Your task to perform on an android device: What is the recent news? Image 0: 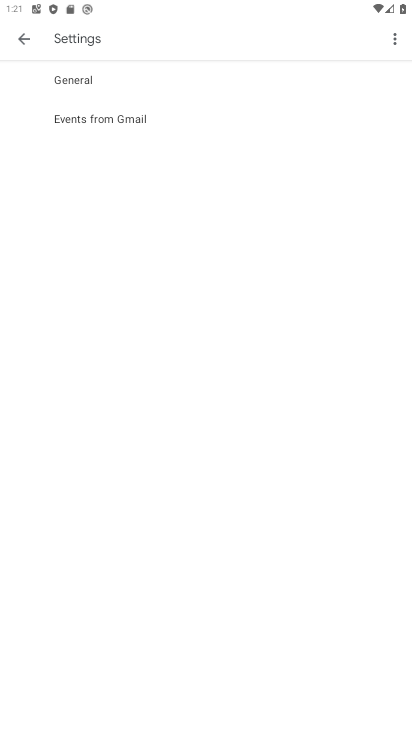
Step 0: press home button
Your task to perform on an android device: What is the recent news? Image 1: 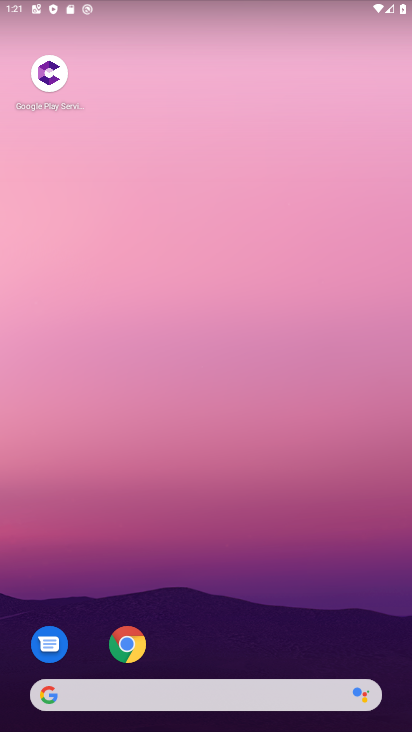
Step 1: drag from (411, 613) to (410, 190)
Your task to perform on an android device: What is the recent news? Image 2: 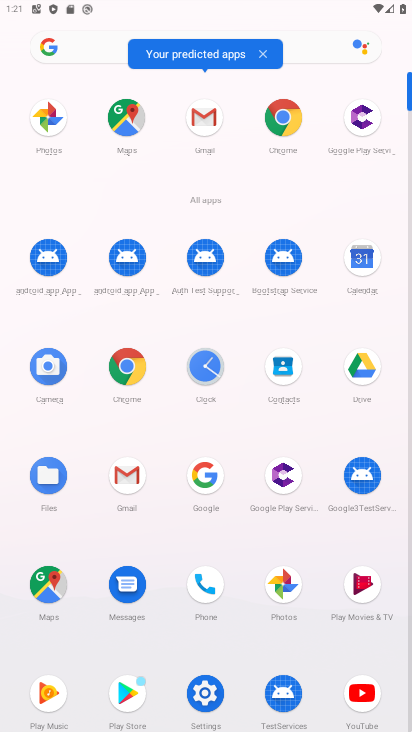
Step 2: click (221, 476)
Your task to perform on an android device: What is the recent news? Image 3: 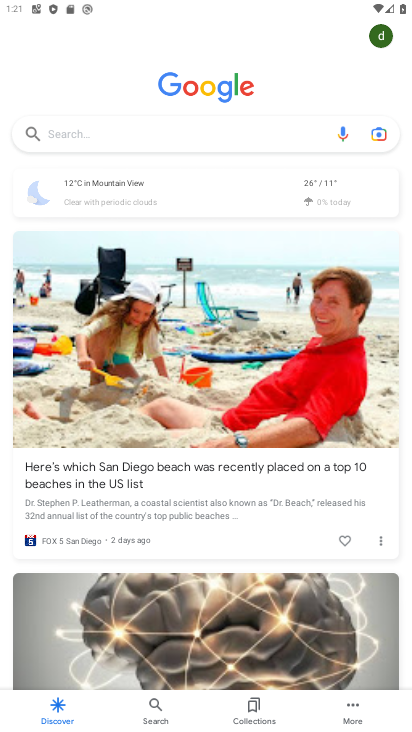
Step 3: task complete